Your task to perform on an android device: turn on translation in the chrome app Image 0: 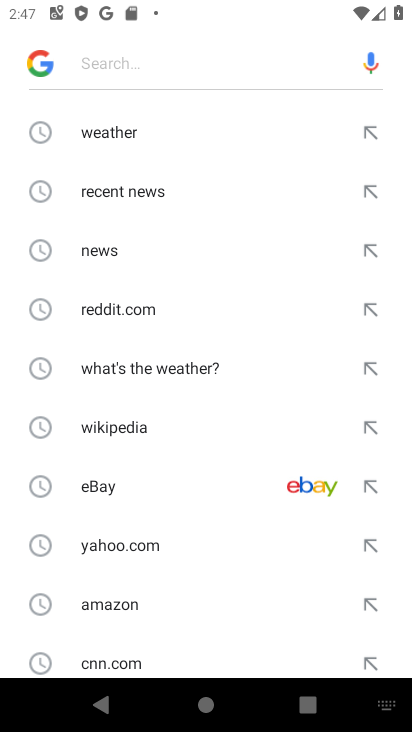
Step 0: press home button
Your task to perform on an android device: turn on translation in the chrome app Image 1: 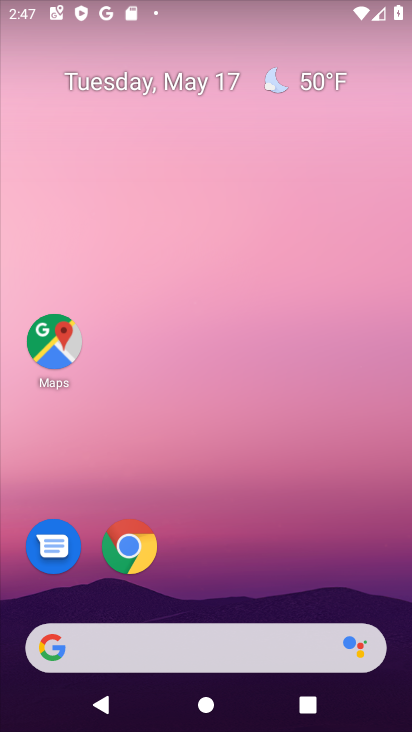
Step 1: click (146, 549)
Your task to perform on an android device: turn on translation in the chrome app Image 2: 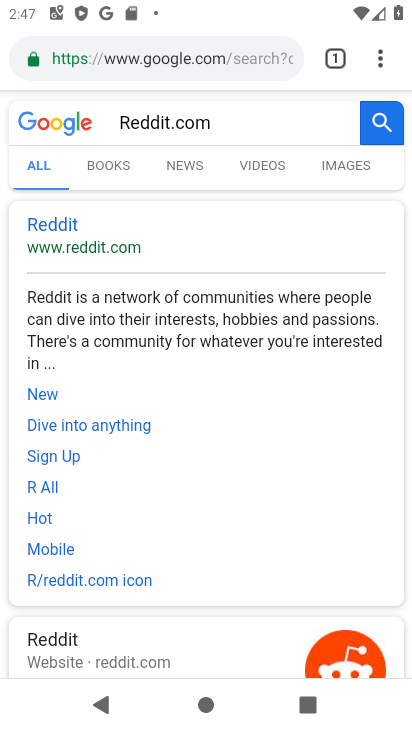
Step 2: click (373, 58)
Your task to perform on an android device: turn on translation in the chrome app Image 3: 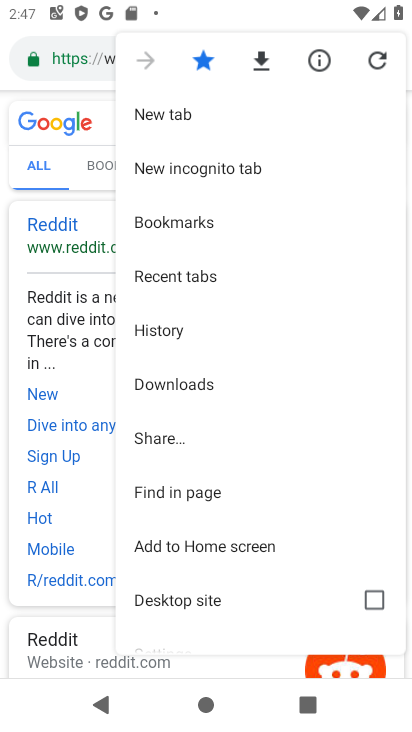
Step 3: drag from (193, 574) to (242, 368)
Your task to perform on an android device: turn on translation in the chrome app Image 4: 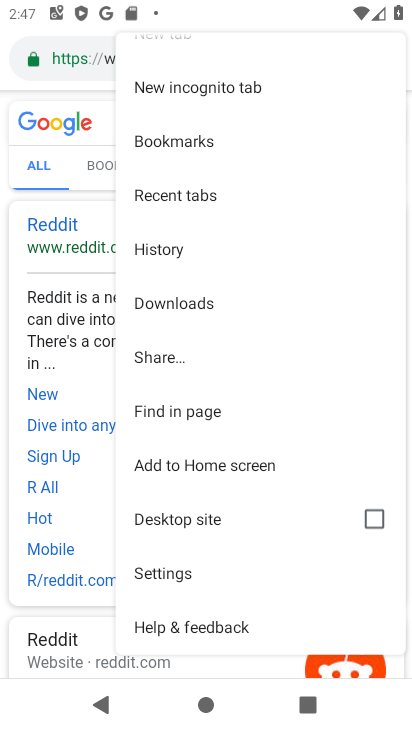
Step 4: click (178, 576)
Your task to perform on an android device: turn on translation in the chrome app Image 5: 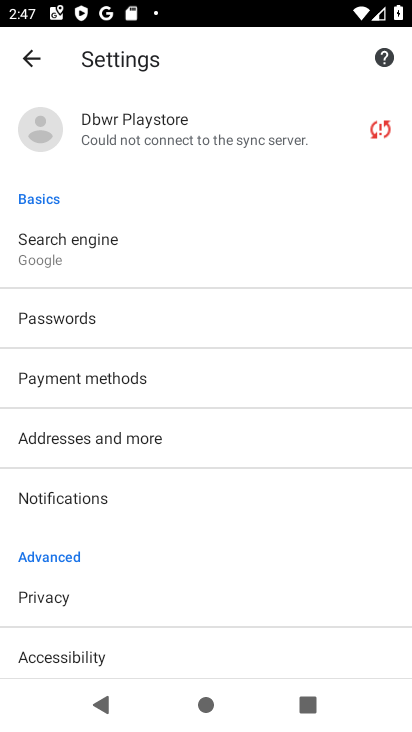
Step 5: drag from (160, 570) to (225, 288)
Your task to perform on an android device: turn on translation in the chrome app Image 6: 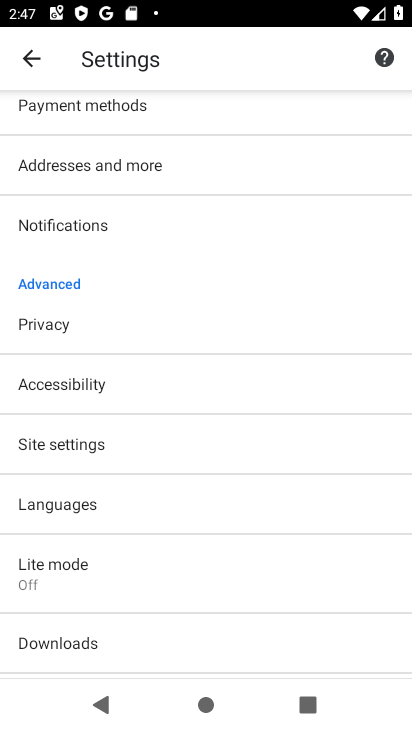
Step 6: click (99, 496)
Your task to perform on an android device: turn on translation in the chrome app Image 7: 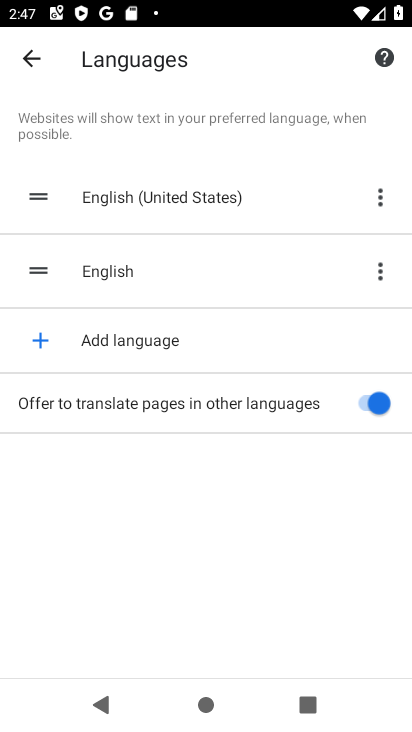
Step 7: task complete